Your task to perform on an android device: Open the phone app and click the voicemail tab. Image 0: 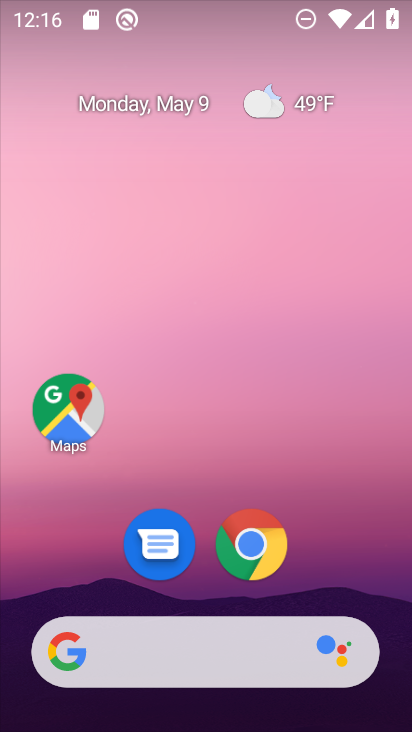
Step 0: drag from (361, 529) to (363, 11)
Your task to perform on an android device: Open the phone app and click the voicemail tab. Image 1: 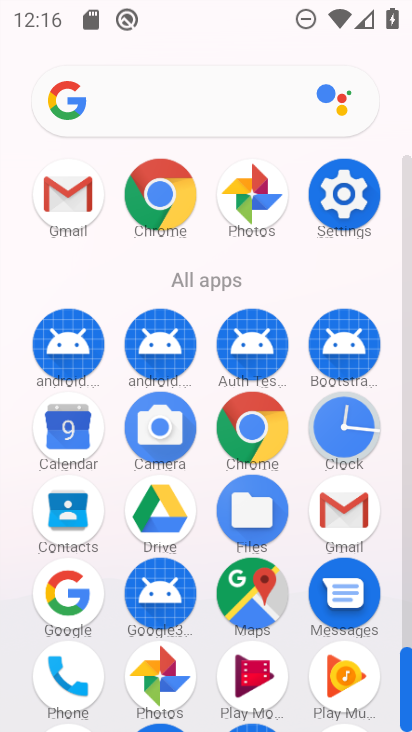
Step 1: drag from (398, 557) to (403, 71)
Your task to perform on an android device: Open the phone app and click the voicemail tab. Image 2: 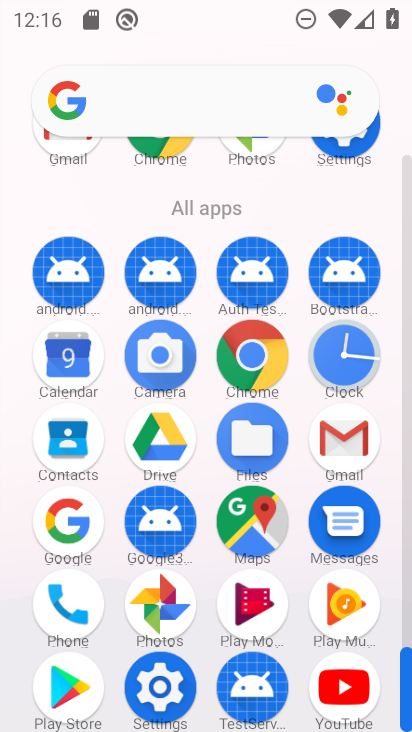
Step 2: click (91, 606)
Your task to perform on an android device: Open the phone app and click the voicemail tab. Image 3: 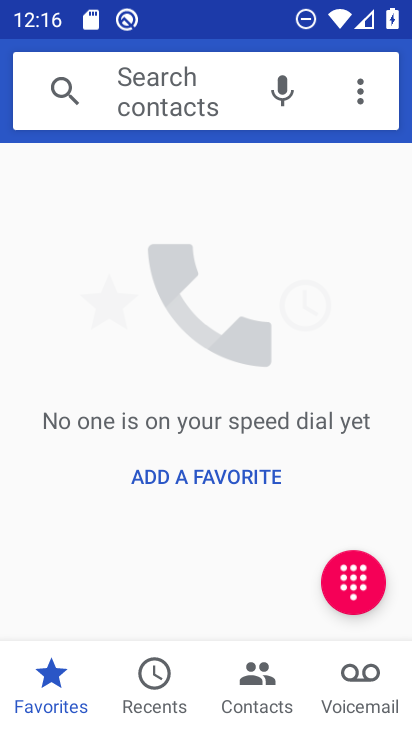
Step 3: click (358, 690)
Your task to perform on an android device: Open the phone app and click the voicemail tab. Image 4: 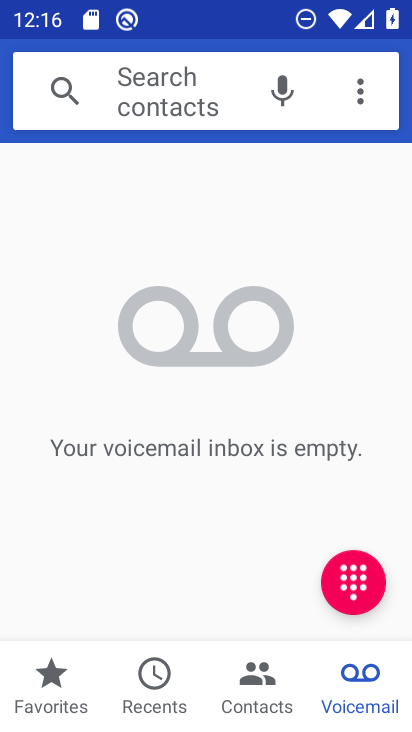
Step 4: task complete